Your task to perform on an android device: Go to Wikipedia Image 0: 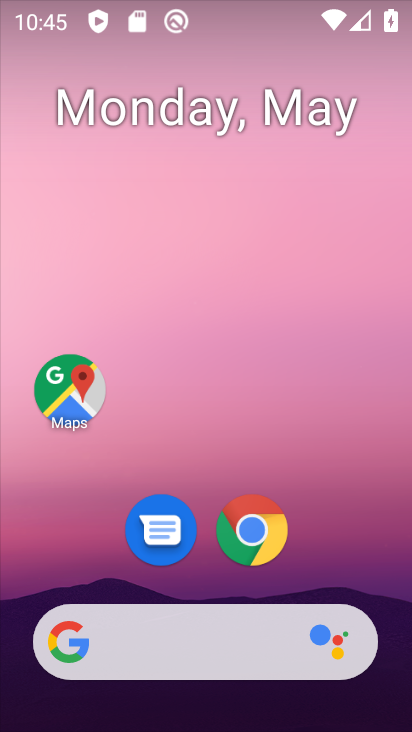
Step 0: drag from (329, 429) to (268, 27)
Your task to perform on an android device: Go to Wikipedia Image 1: 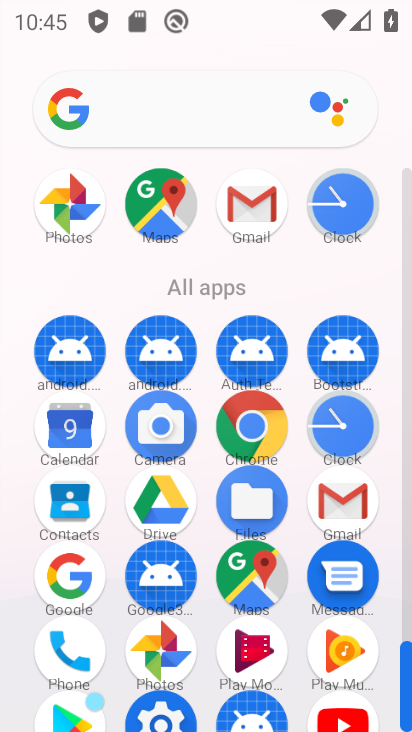
Step 1: drag from (25, 595) to (23, 255)
Your task to perform on an android device: Go to Wikipedia Image 2: 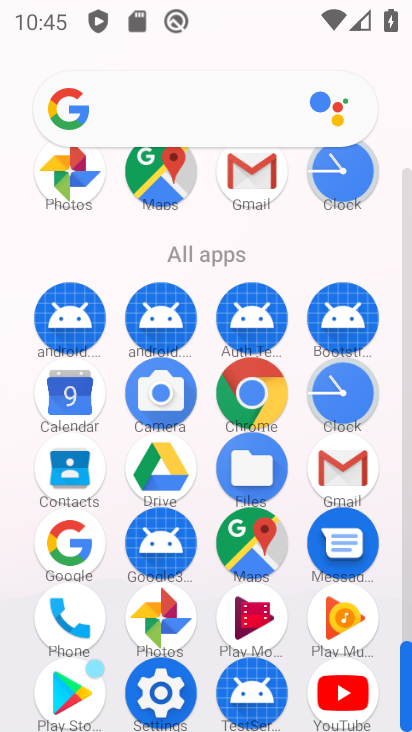
Step 2: click (254, 389)
Your task to perform on an android device: Go to Wikipedia Image 3: 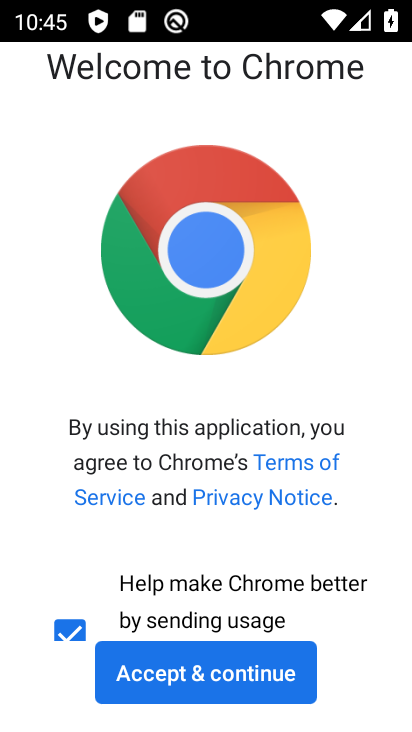
Step 3: click (247, 672)
Your task to perform on an android device: Go to Wikipedia Image 4: 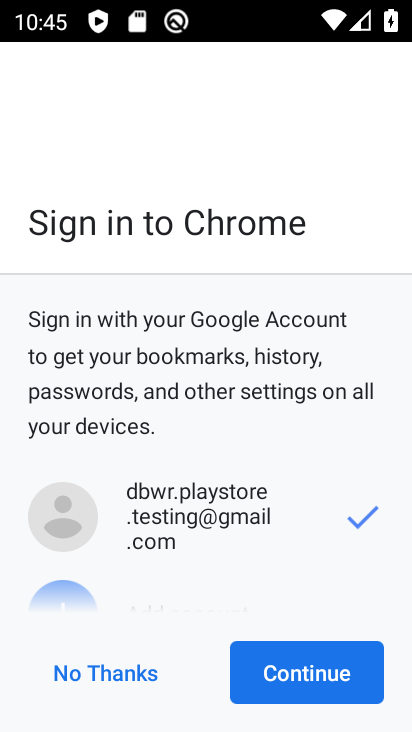
Step 4: click (311, 662)
Your task to perform on an android device: Go to Wikipedia Image 5: 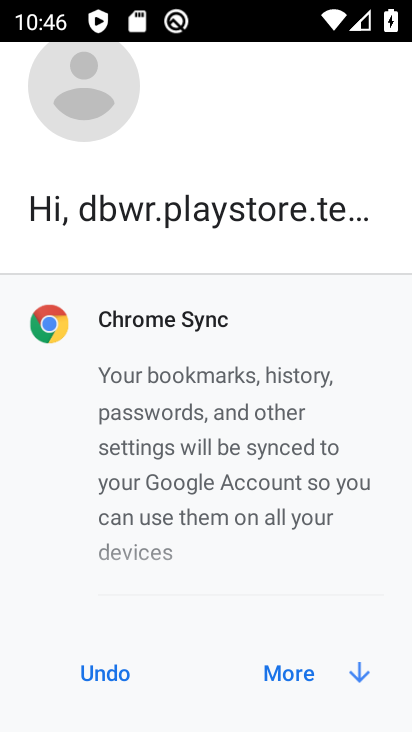
Step 5: click (299, 674)
Your task to perform on an android device: Go to Wikipedia Image 6: 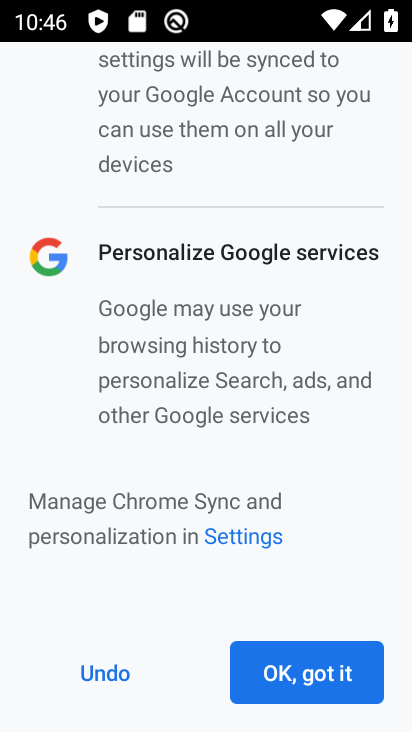
Step 6: click (299, 674)
Your task to perform on an android device: Go to Wikipedia Image 7: 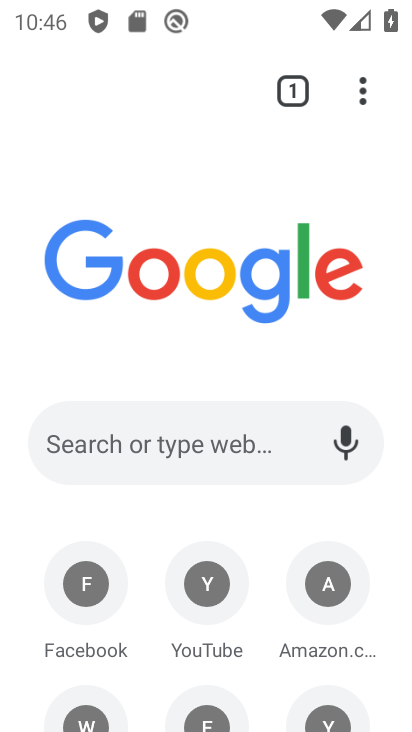
Step 7: click (163, 72)
Your task to perform on an android device: Go to Wikipedia Image 8: 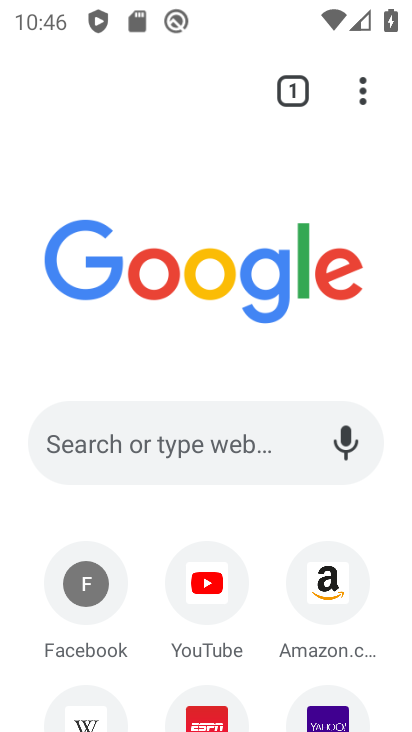
Step 8: click (185, 434)
Your task to perform on an android device: Go to Wikipedia Image 9: 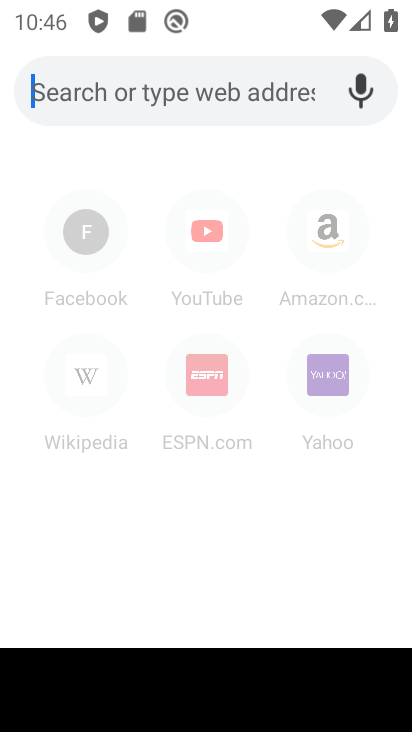
Step 9: type "Wikipedia"
Your task to perform on an android device: Go to Wikipedia Image 10: 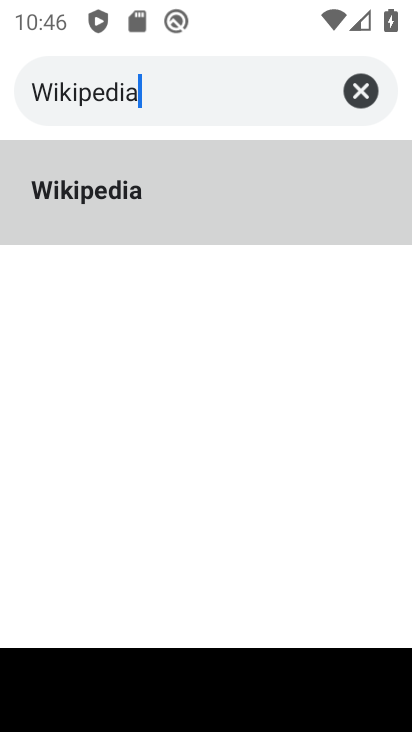
Step 10: type ""
Your task to perform on an android device: Go to Wikipedia Image 11: 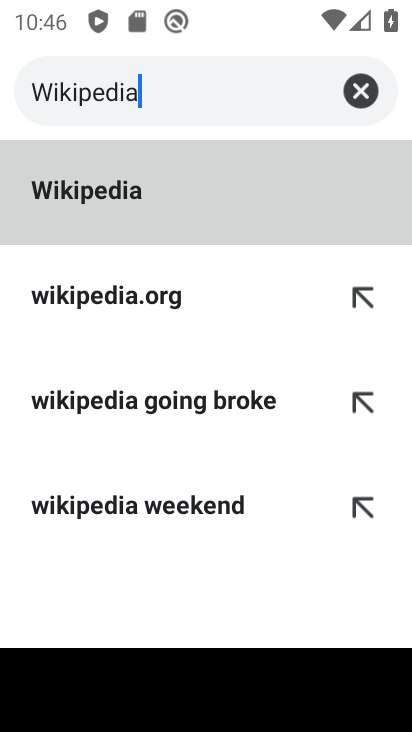
Step 11: click (169, 284)
Your task to perform on an android device: Go to Wikipedia Image 12: 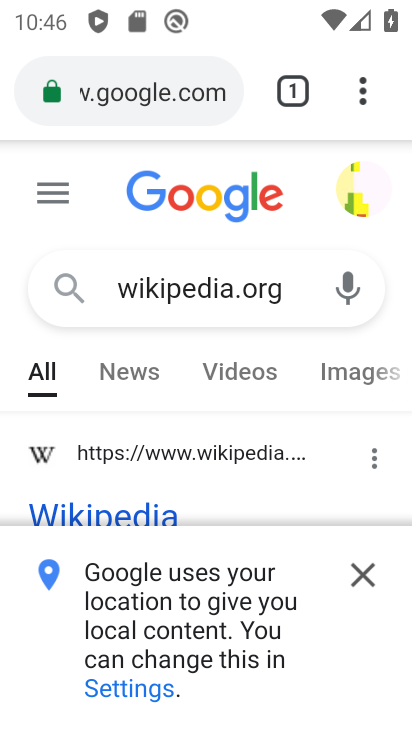
Step 12: drag from (225, 407) to (254, 156)
Your task to perform on an android device: Go to Wikipedia Image 13: 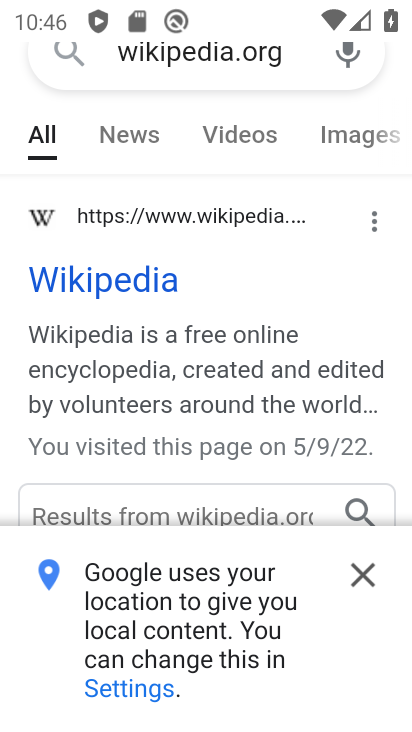
Step 13: click (130, 265)
Your task to perform on an android device: Go to Wikipedia Image 14: 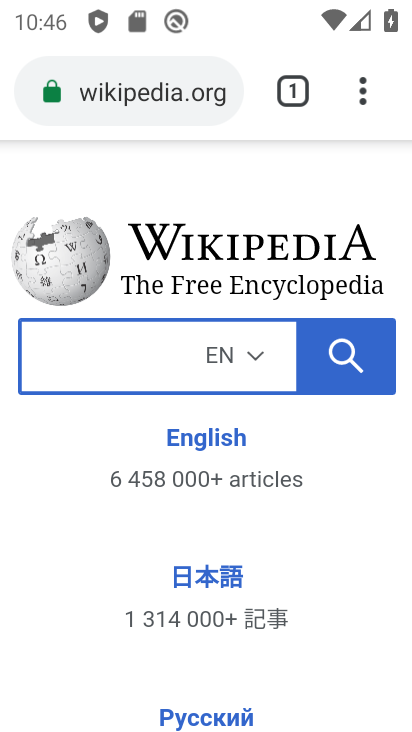
Step 14: task complete